Your task to perform on an android device: What's on my calendar today? Image 0: 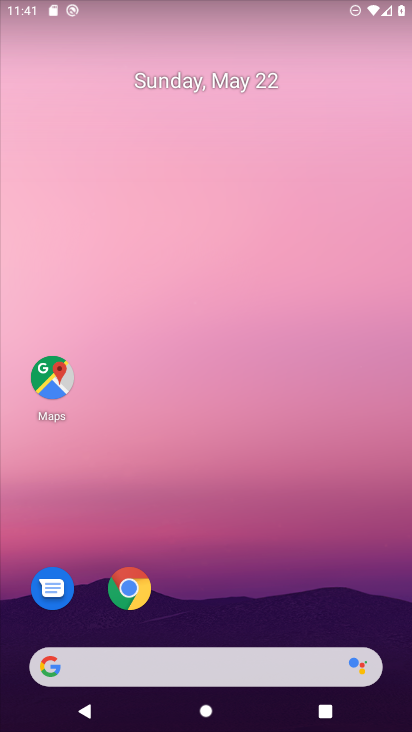
Step 0: drag from (163, 646) to (200, 141)
Your task to perform on an android device: What's on my calendar today? Image 1: 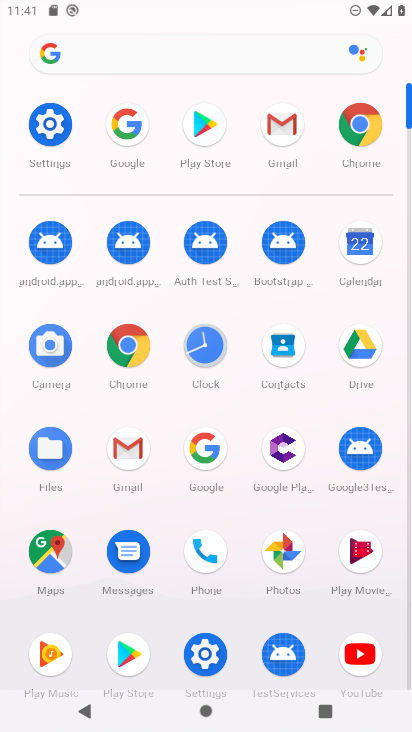
Step 1: click (366, 243)
Your task to perform on an android device: What's on my calendar today? Image 2: 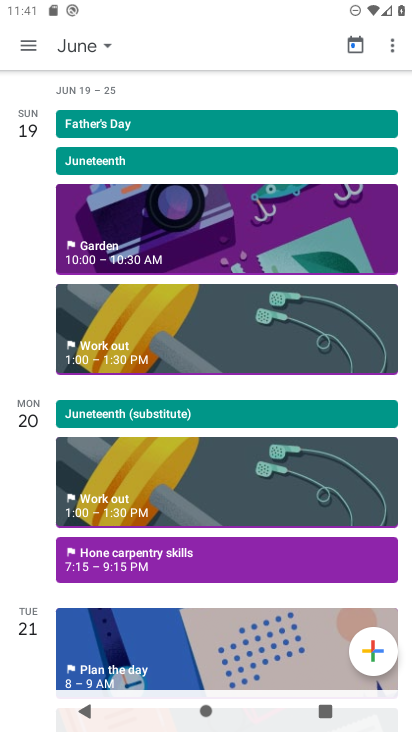
Step 2: click (80, 41)
Your task to perform on an android device: What's on my calendar today? Image 3: 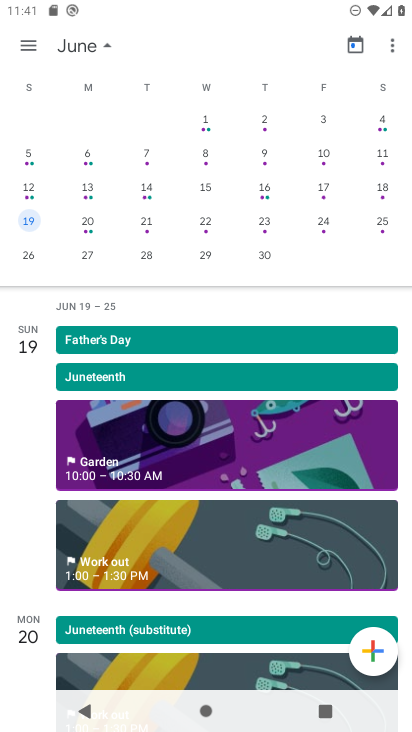
Step 3: drag from (143, 193) to (384, 243)
Your task to perform on an android device: What's on my calendar today? Image 4: 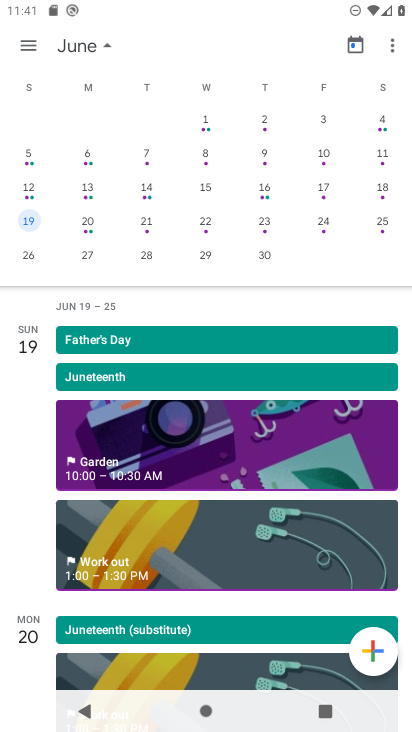
Step 4: drag from (47, 206) to (341, 261)
Your task to perform on an android device: What's on my calendar today? Image 5: 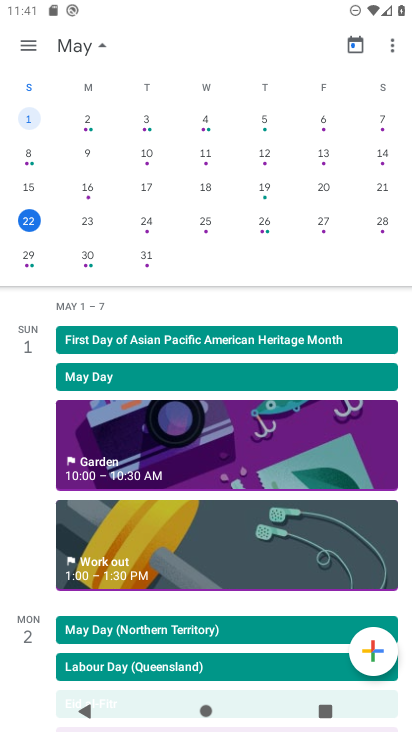
Step 5: click (29, 223)
Your task to perform on an android device: What's on my calendar today? Image 6: 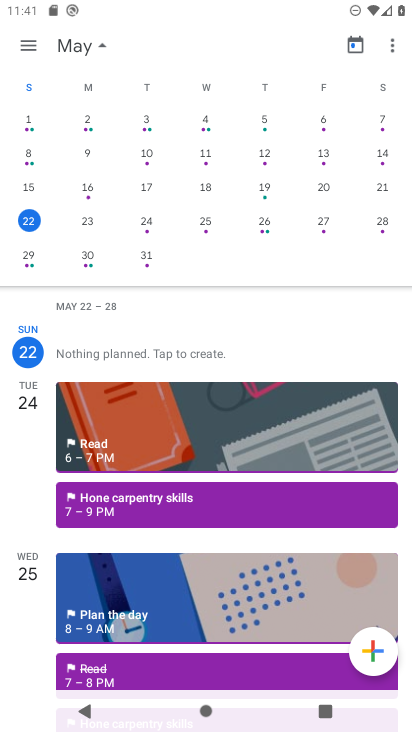
Step 6: task complete